Your task to perform on an android device: turn on the 24-hour format for clock Image 0: 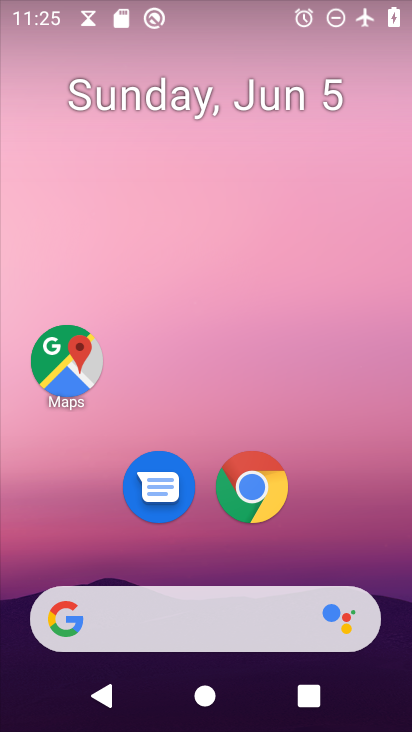
Step 0: drag from (308, 539) to (277, 292)
Your task to perform on an android device: turn on the 24-hour format for clock Image 1: 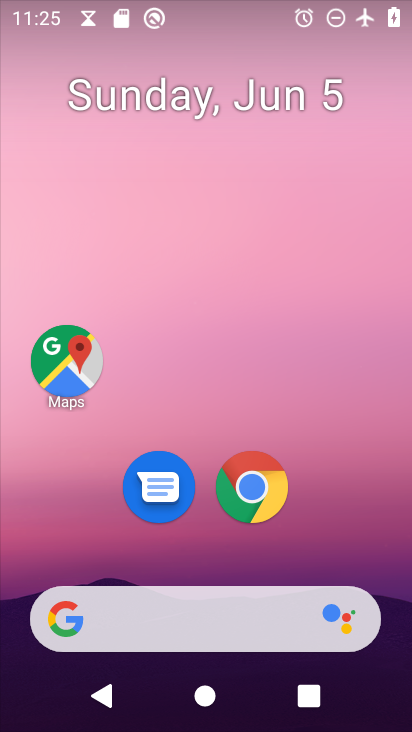
Step 1: drag from (272, 447) to (242, 270)
Your task to perform on an android device: turn on the 24-hour format for clock Image 2: 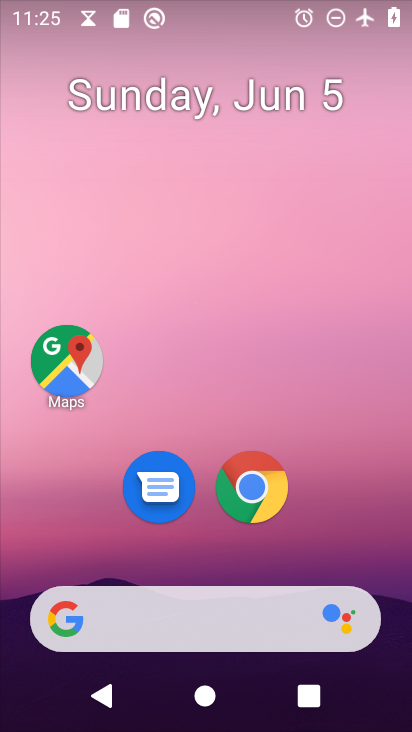
Step 2: drag from (238, 562) to (191, 314)
Your task to perform on an android device: turn on the 24-hour format for clock Image 3: 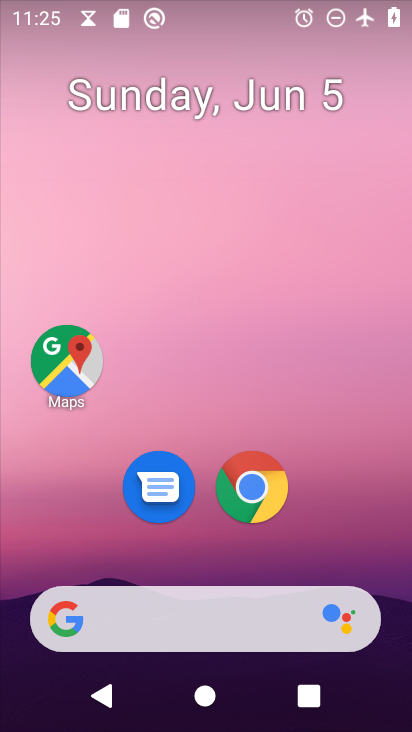
Step 3: drag from (209, 556) to (201, 197)
Your task to perform on an android device: turn on the 24-hour format for clock Image 4: 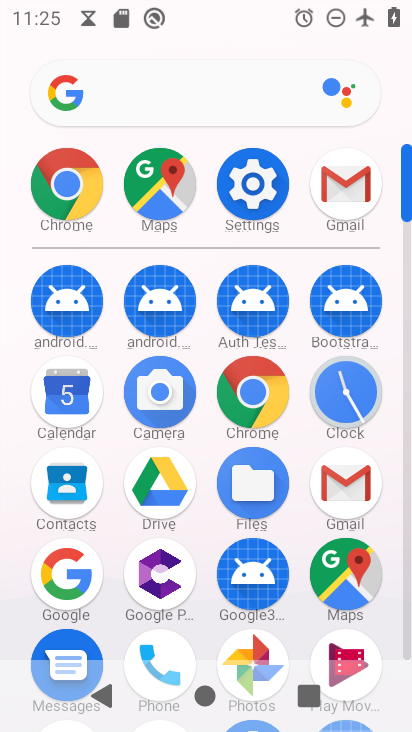
Step 4: click (331, 388)
Your task to perform on an android device: turn on the 24-hour format for clock Image 5: 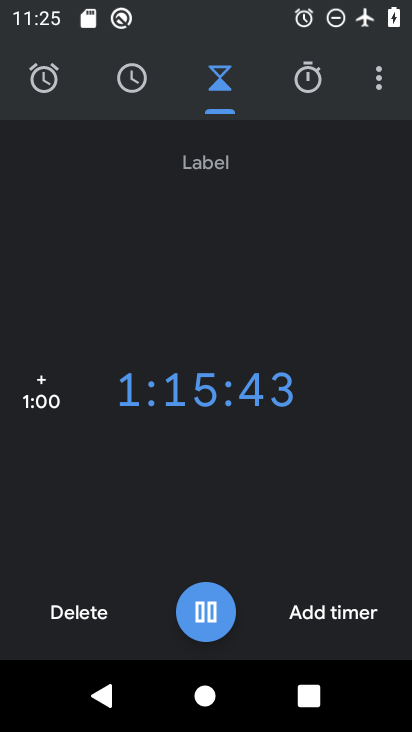
Step 5: click (380, 66)
Your task to perform on an android device: turn on the 24-hour format for clock Image 6: 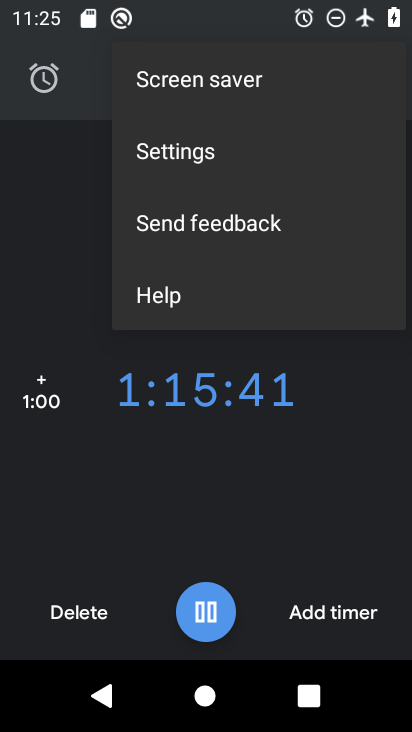
Step 6: click (169, 144)
Your task to perform on an android device: turn on the 24-hour format for clock Image 7: 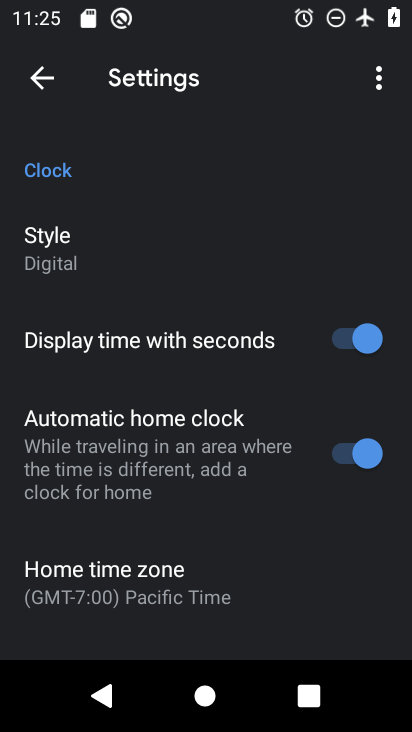
Step 7: drag from (213, 543) to (233, 255)
Your task to perform on an android device: turn on the 24-hour format for clock Image 8: 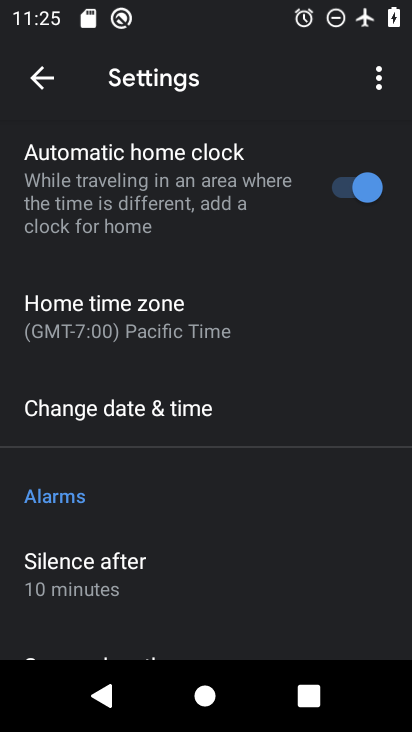
Step 8: click (163, 401)
Your task to perform on an android device: turn on the 24-hour format for clock Image 9: 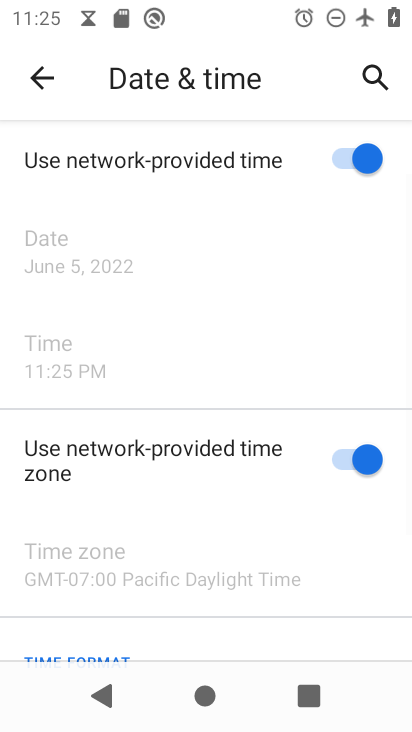
Step 9: drag from (189, 539) to (203, 258)
Your task to perform on an android device: turn on the 24-hour format for clock Image 10: 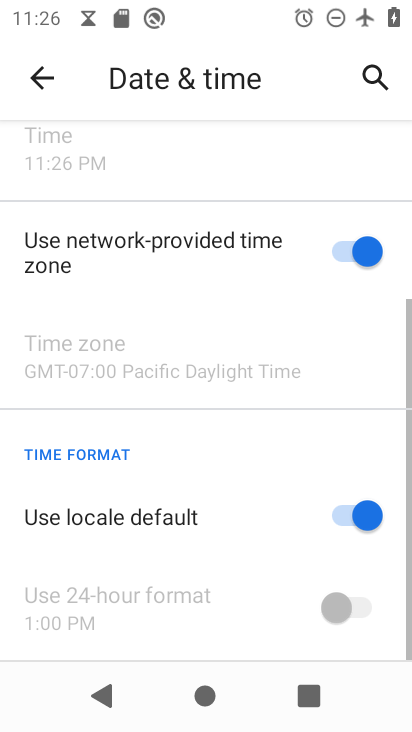
Step 10: drag from (317, 558) to (308, 421)
Your task to perform on an android device: turn on the 24-hour format for clock Image 11: 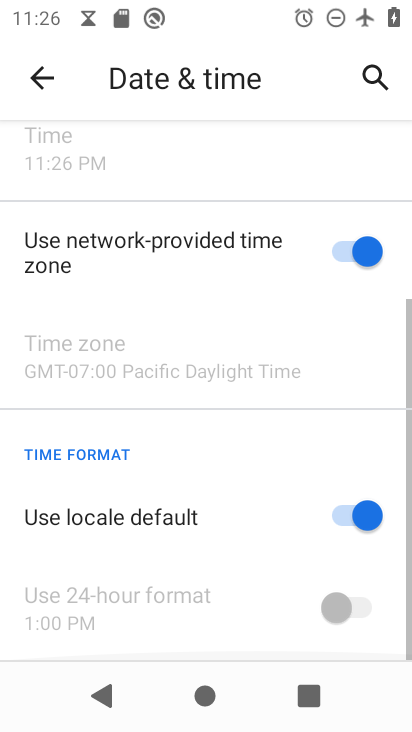
Step 11: click (350, 510)
Your task to perform on an android device: turn on the 24-hour format for clock Image 12: 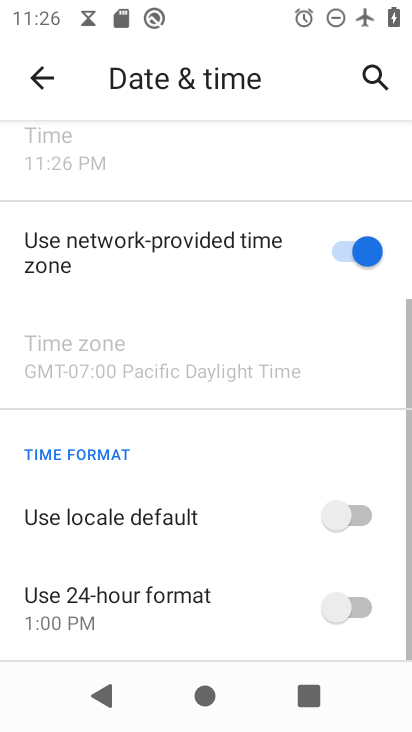
Step 12: click (352, 612)
Your task to perform on an android device: turn on the 24-hour format for clock Image 13: 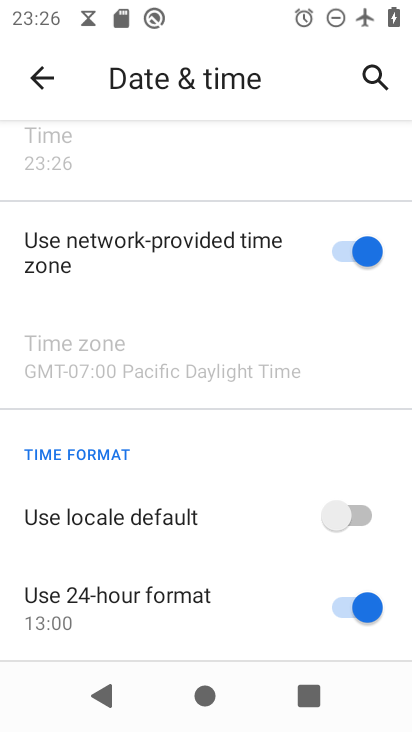
Step 13: task complete